Your task to perform on an android device: Go to wifi settings Image 0: 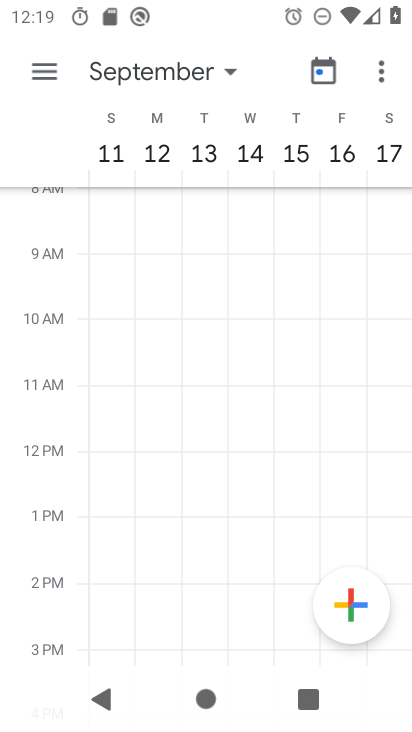
Step 0: press home button
Your task to perform on an android device: Go to wifi settings Image 1: 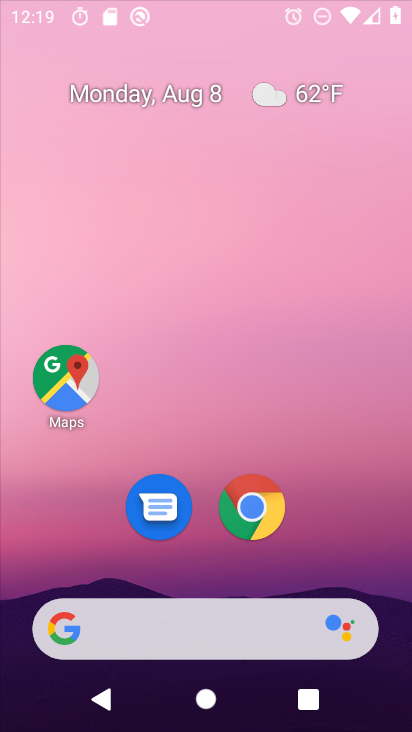
Step 1: press home button
Your task to perform on an android device: Go to wifi settings Image 2: 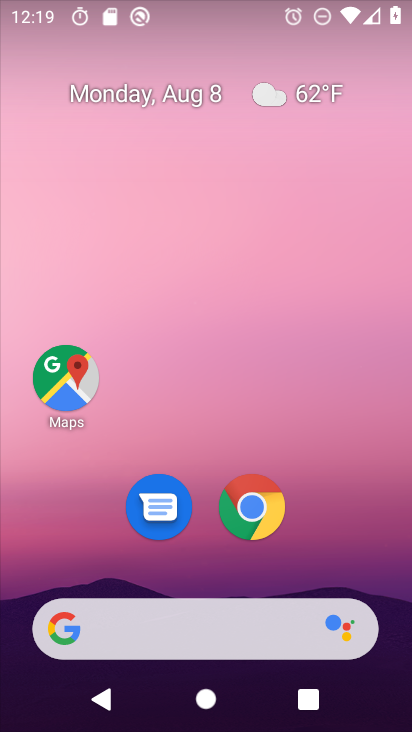
Step 2: drag from (340, 473) to (266, 0)
Your task to perform on an android device: Go to wifi settings Image 3: 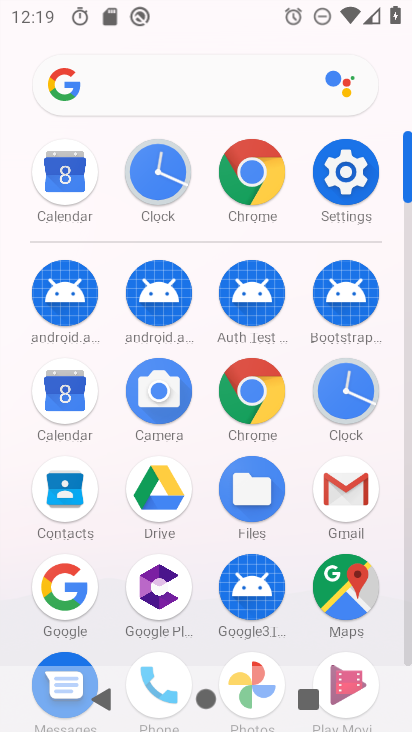
Step 3: click (355, 175)
Your task to perform on an android device: Go to wifi settings Image 4: 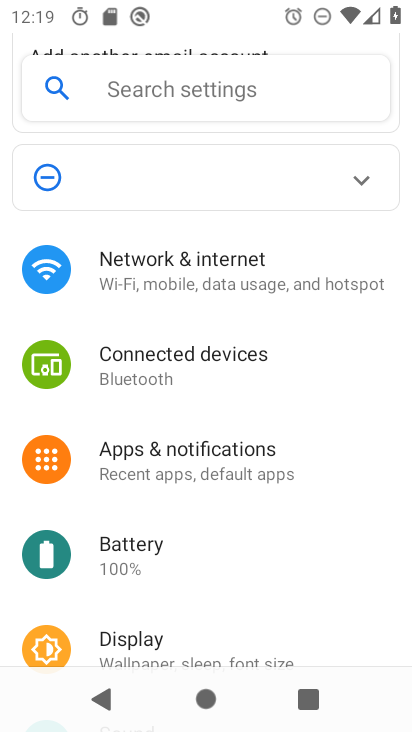
Step 4: click (201, 264)
Your task to perform on an android device: Go to wifi settings Image 5: 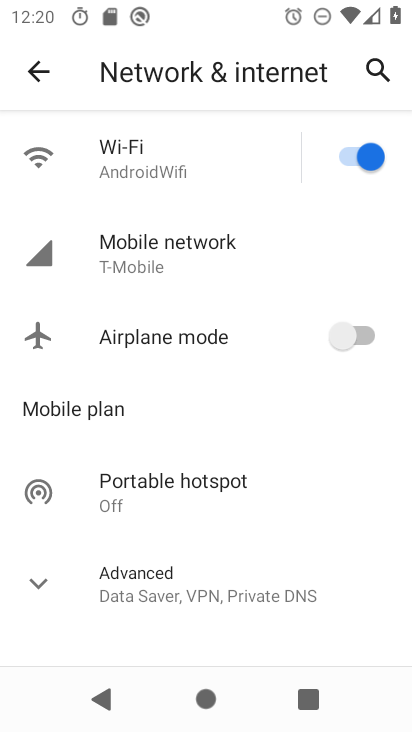
Step 5: click (194, 175)
Your task to perform on an android device: Go to wifi settings Image 6: 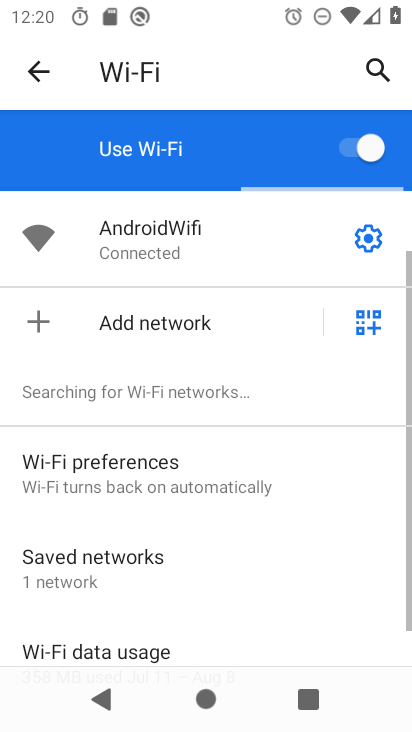
Step 6: click (371, 247)
Your task to perform on an android device: Go to wifi settings Image 7: 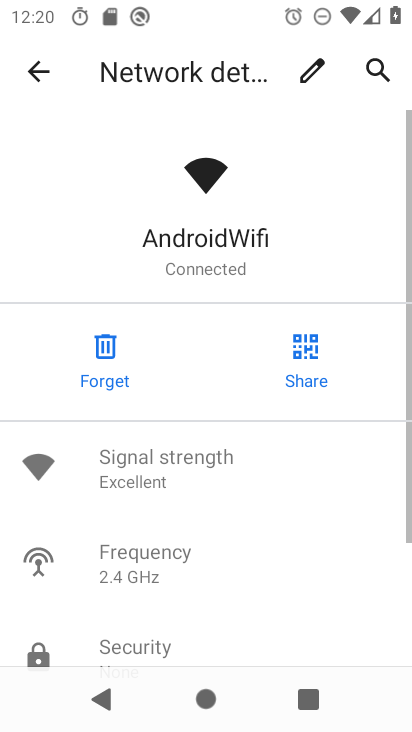
Step 7: task complete